Your task to perform on an android device: Search for vegetarian restaurants on Maps Image 0: 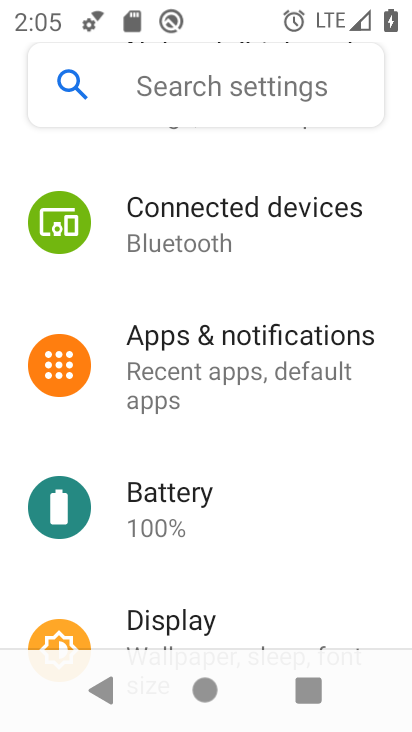
Step 0: press home button
Your task to perform on an android device: Search for vegetarian restaurants on Maps Image 1: 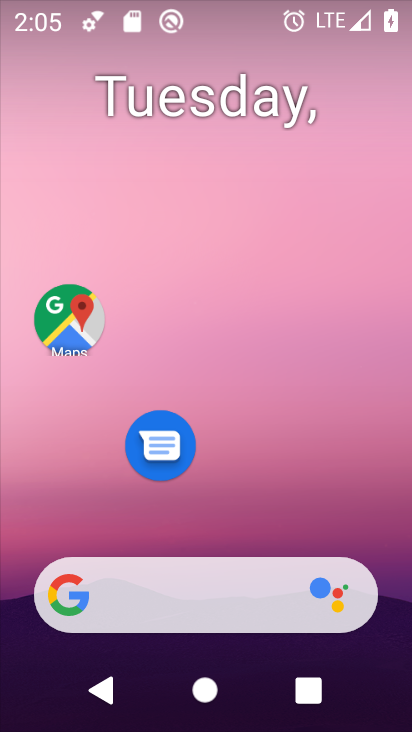
Step 1: click (61, 315)
Your task to perform on an android device: Search for vegetarian restaurants on Maps Image 2: 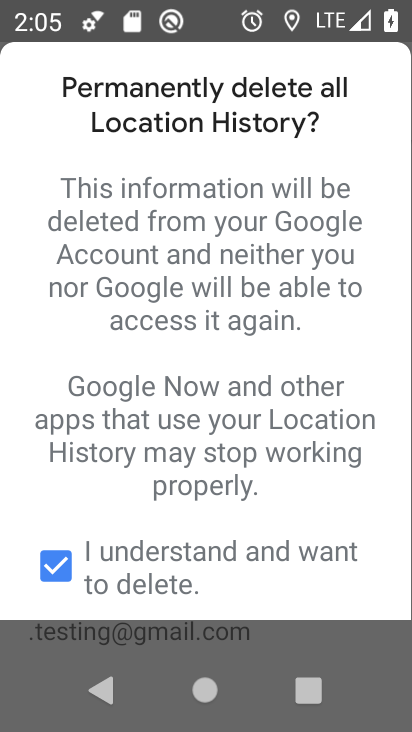
Step 2: drag from (44, 494) to (39, 90)
Your task to perform on an android device: Search for vegetarian restaurants on Maps Image 3: 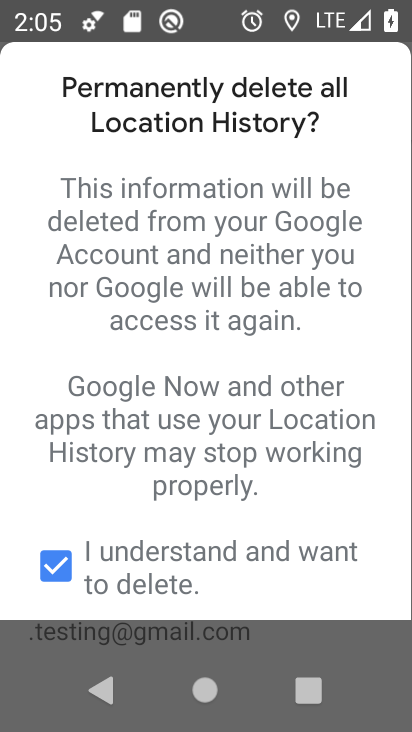
Step 3: press back button
Your task to perform on an android device: Search for vegetarian restaurants on Maps Image 4: 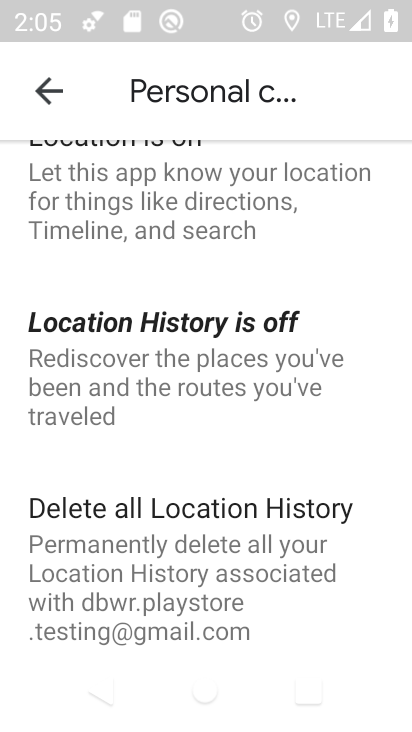
Step 4: click (45, 99)
Your task to perform on an android device: Search for vegetarian restaurants on Maps Image 5: 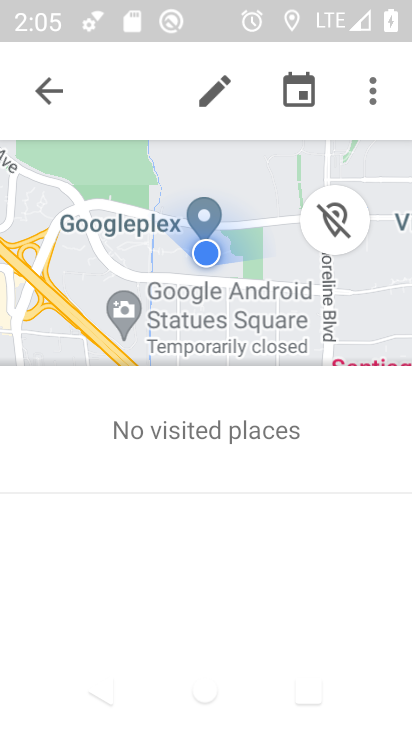
Step 5: click (45, 99)
Your task to perform on an android device: Search for vegetarian restaurants on Maps Image 6: 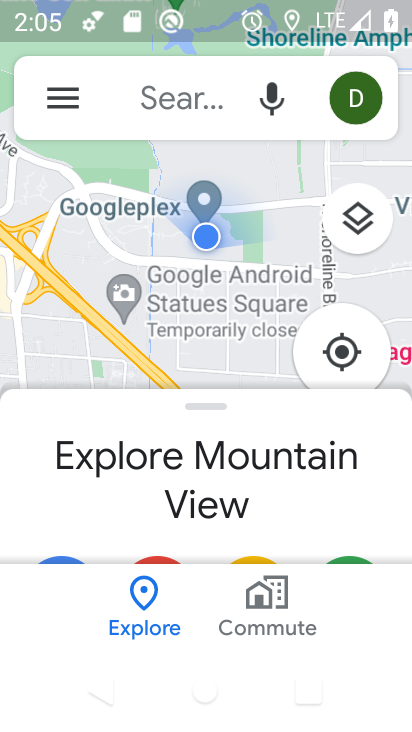
Step 6: click (163, 99)
Your task to perform on an android device: Search for vegetarian restaurants on Maps Image 7: 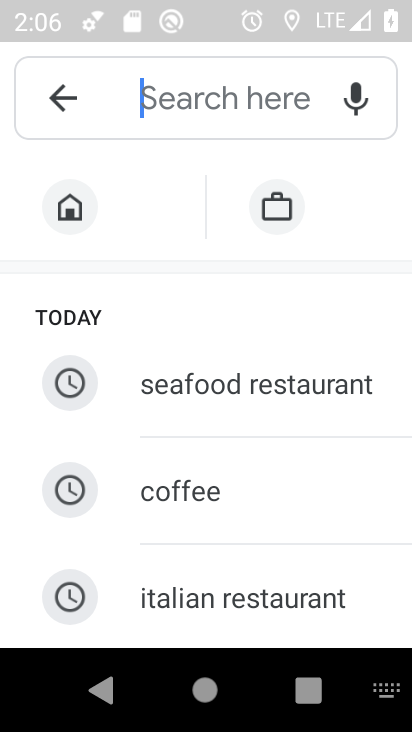
Step 7: type "vegetarian rest"
Your task to perform on an android device: Search for vegetarian restaurants on Maps Image 8: 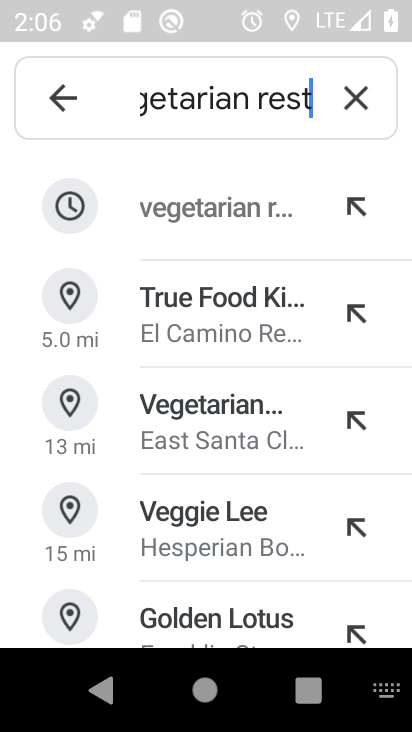
Step 8: click (194, 206)
Your task to perform on an android device: Search for vegetarian restaurants on Maps Image 9: 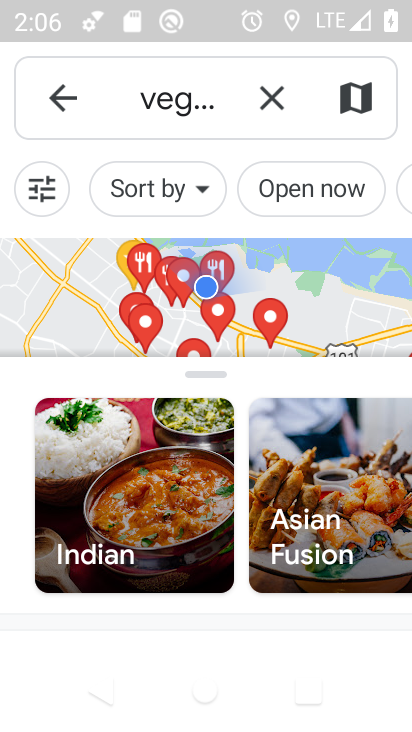
Step 9: task complete